Your task to perform on an android device: Turn off the flashlight Image 0: 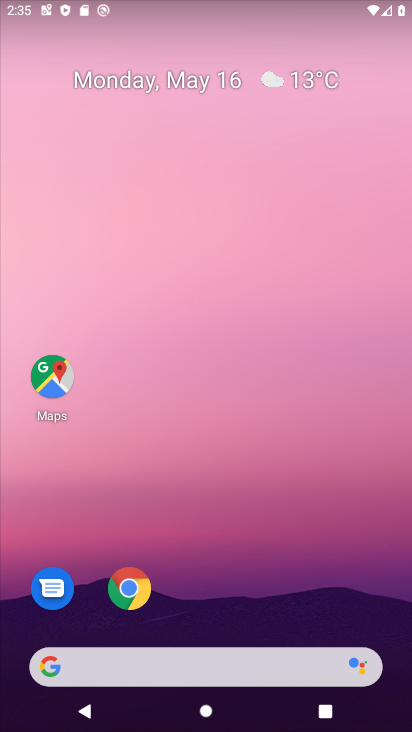
Step 0: drag from (268, 633) to (281, 0)
Your task to perform on an android device: Turn off the flashlight Image 1: 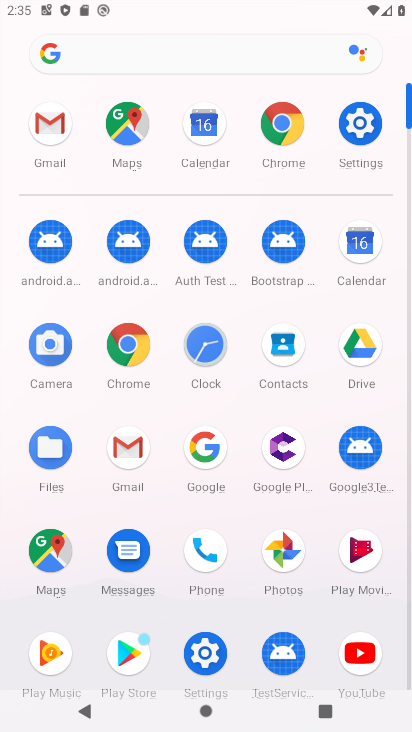
Step 1: click (372, 129)
Your task to perform on an android device: Turn off the flashlight Image 2: 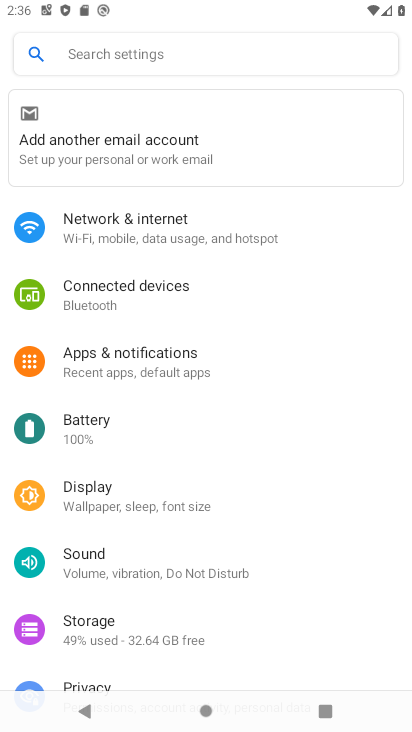
Step 2: drag from (311, 196) to (277, 472)
Your task to perform on an android device: Turn off the flashlight Image 3: 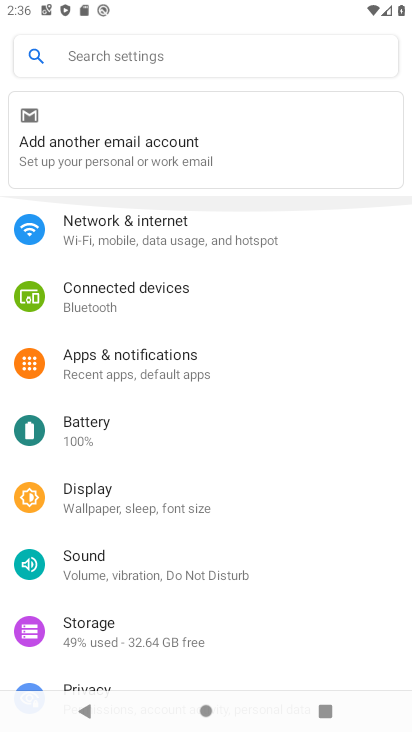
Step 3: click (263, 668)
Your task to perform on an android device: Turn off the flashlight Image 4: 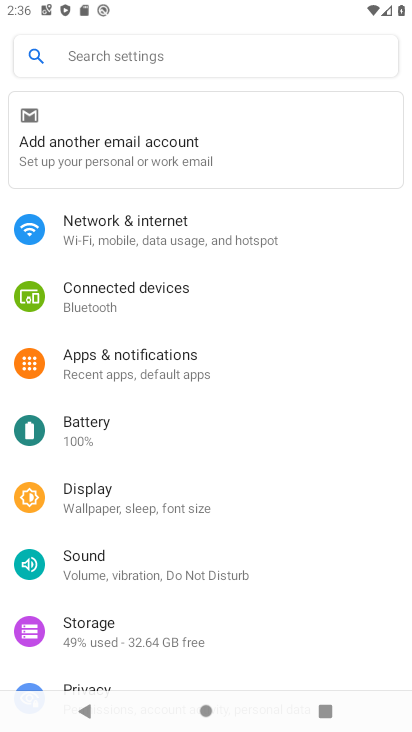
Step 4: task complete